Your task to perform on an android device: Go to Reddit.com Image 0: 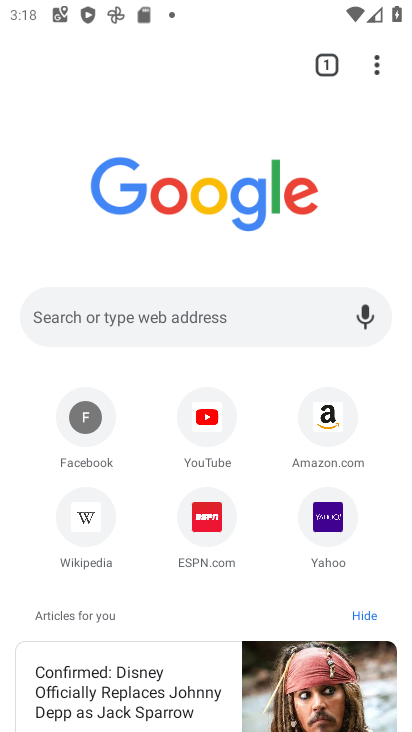
Step 0: press home button
Your task to perform on an android device: Go to Reddit.com Image 1: 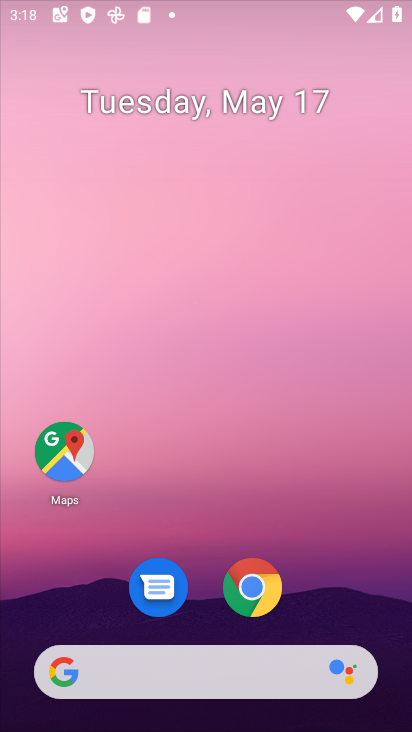
Step 1: drag from (263, 621) to (320, 113)
Your task to perform on an android device: Go to Reddit.com Image 2: 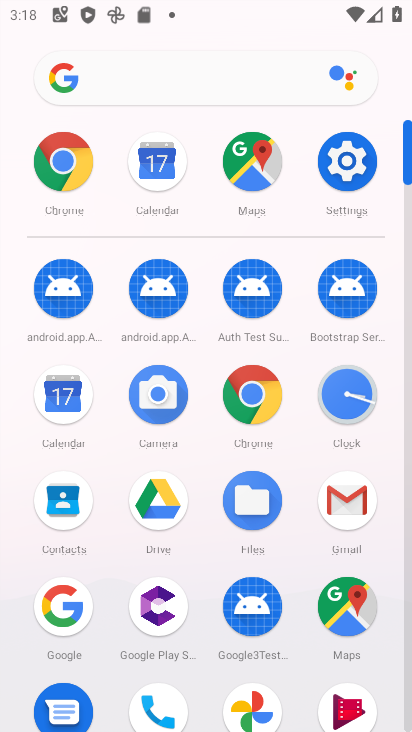
Step 2: click (255, 387)
Your task to perform on an android device: Go to Reddit.com Image 3: 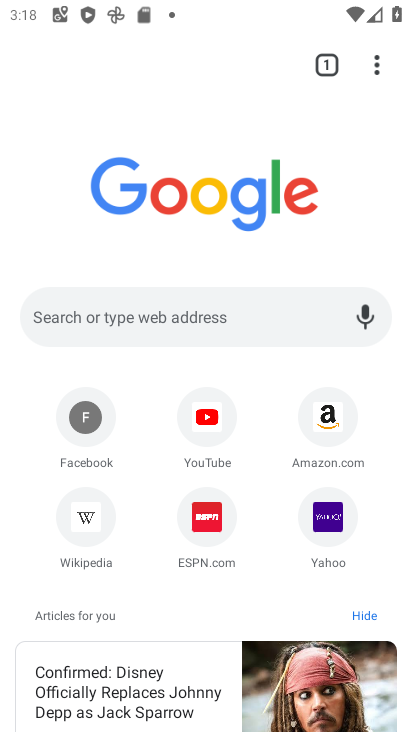
Step 3: click (135, 317)
Your task to perform on an android device: Go to Reddit.com Image 4: 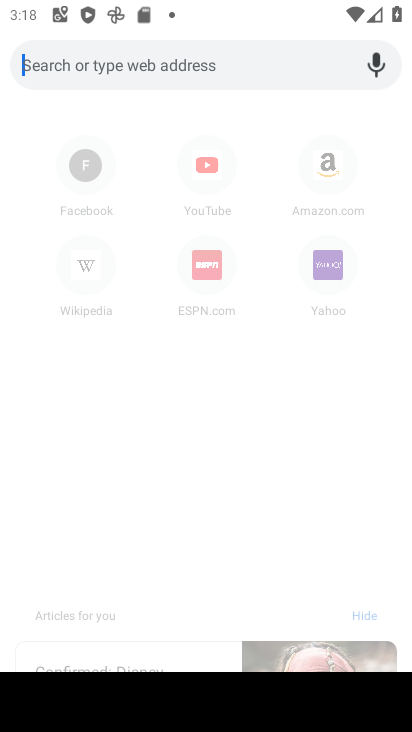
Step 4: type "reddit .com"
Your task to perform on an android device: Go to Reddit.com Image 5: 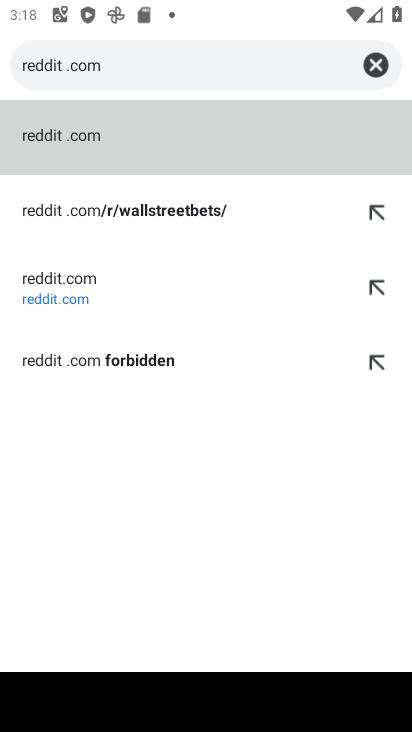
Step 5: click (99, 288)
Your task to perform on an android device: Go to Reddit.com Image 6: 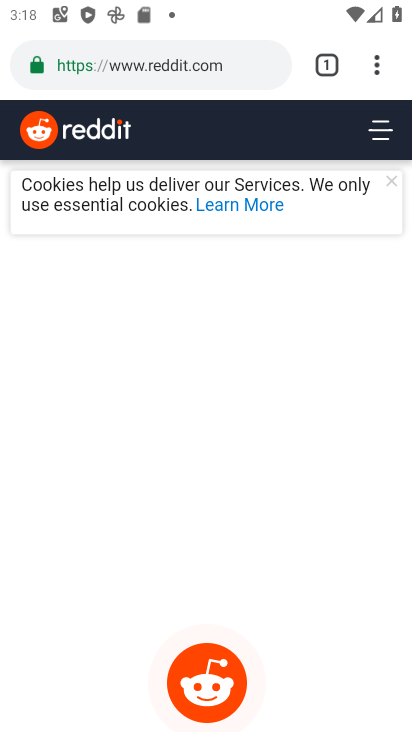
Step 6: task complete